Your task to perform on an android device: Open Google Maps Image 0: 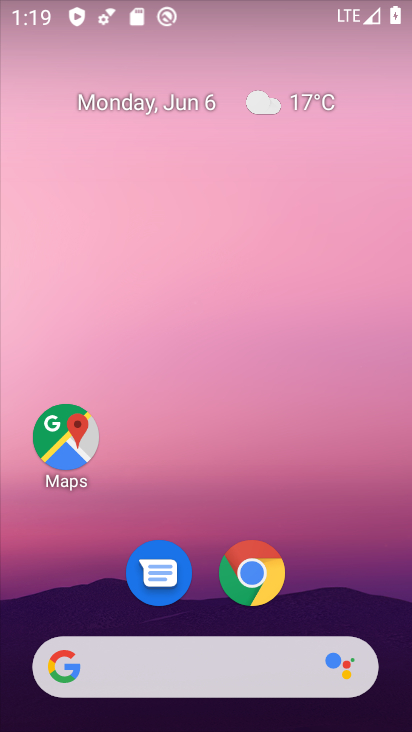
Step 0: drag from (354, 590) to (347, 213)
Your task to perform on an android device: Open Google Maps Image 1: 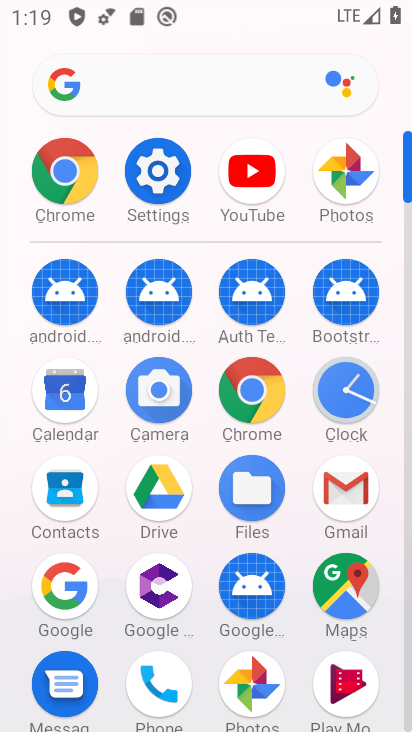
Step 1: click (357, 601)
Your task to perform on an android device: Open Google Maps Image 2: 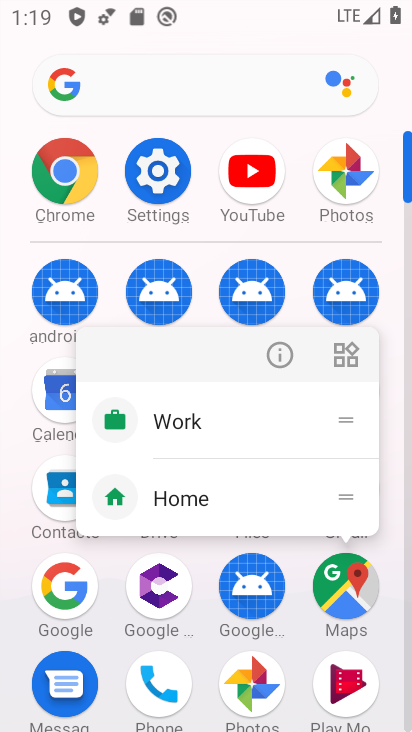
Step 2: click (357, 601)
Your task to perform on an android device: Open Google Maps Image 3: 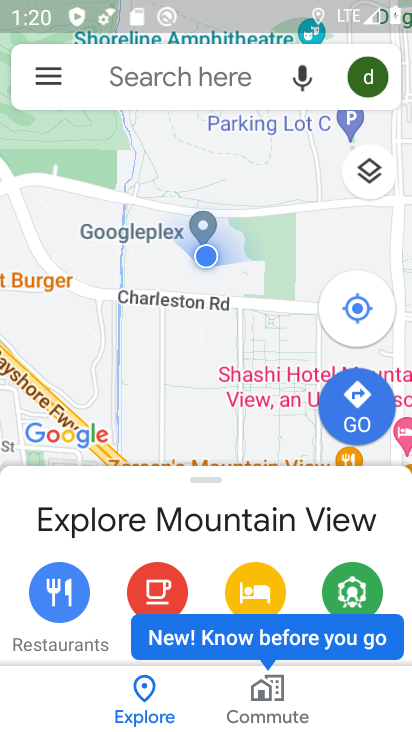
Step 3: task complete